Your task to perform on an android device: open wifi settings Image 0: 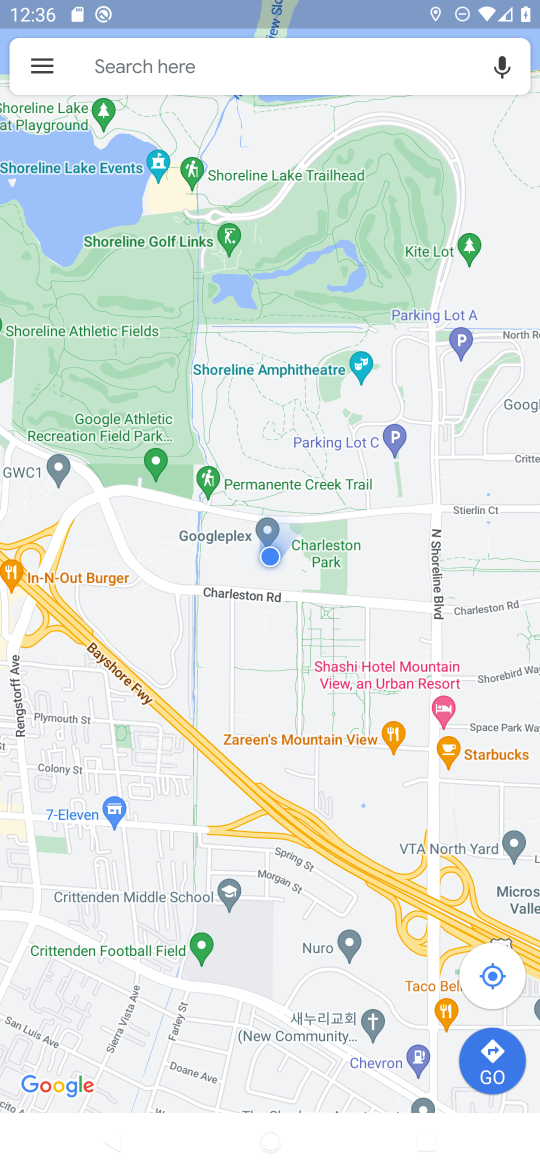
Step 0: press home button
Your task to perform on an android device: open wifi settings Image 1: 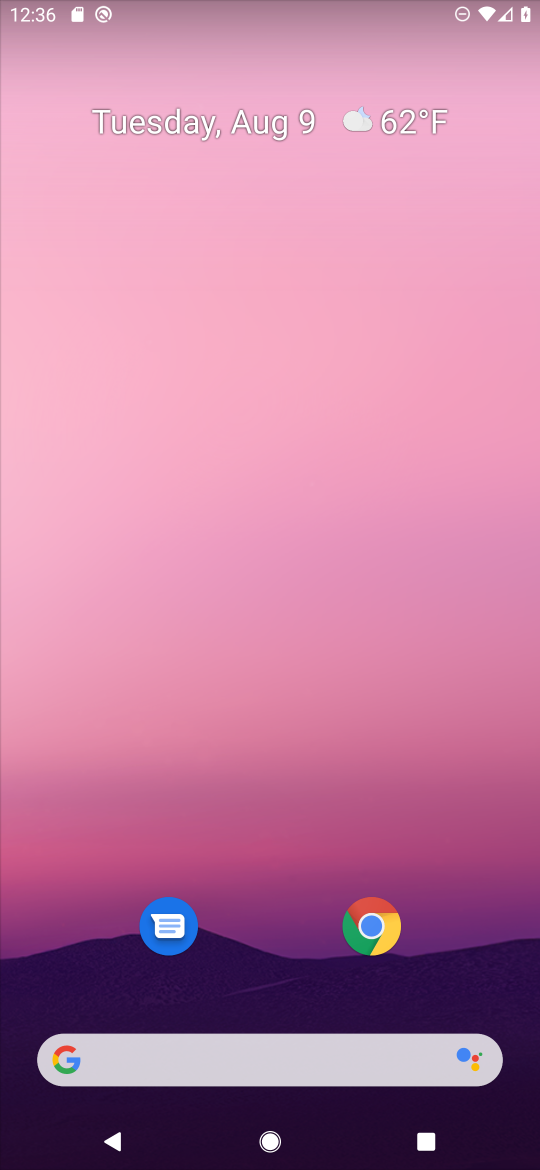
Step 1: drag from (233, 15) to (194, 905)
Your task to perform on an android device: open wifi settings Image 2: 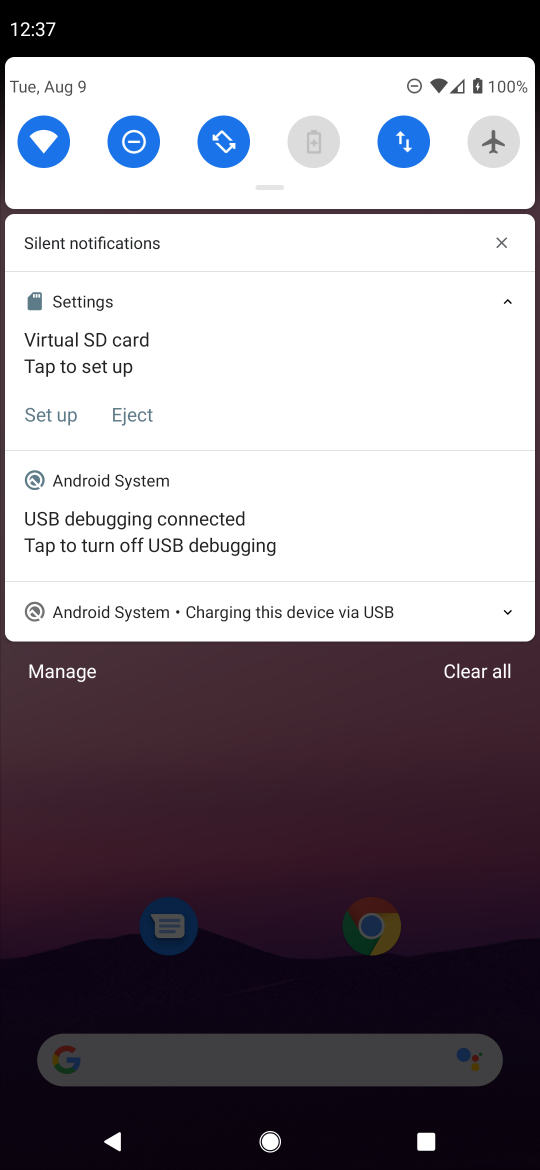
Step 2: click (58, 156)
Your task to perform on an android device: open wifi settings Image 3: 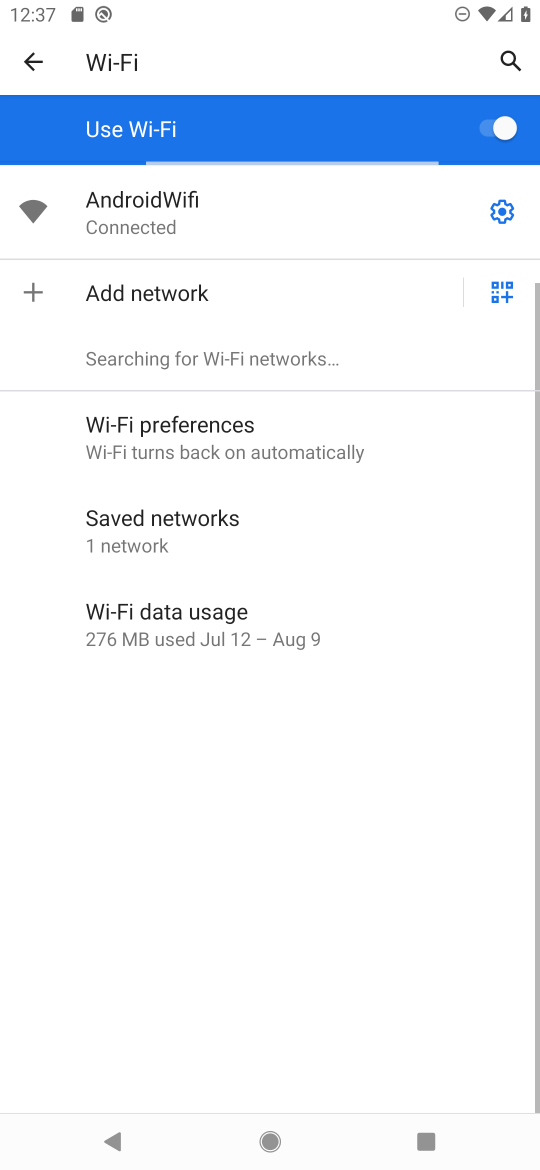
Step 3: click (485, 212)
Your task to perform on an android device: open wifi settings Image 4: 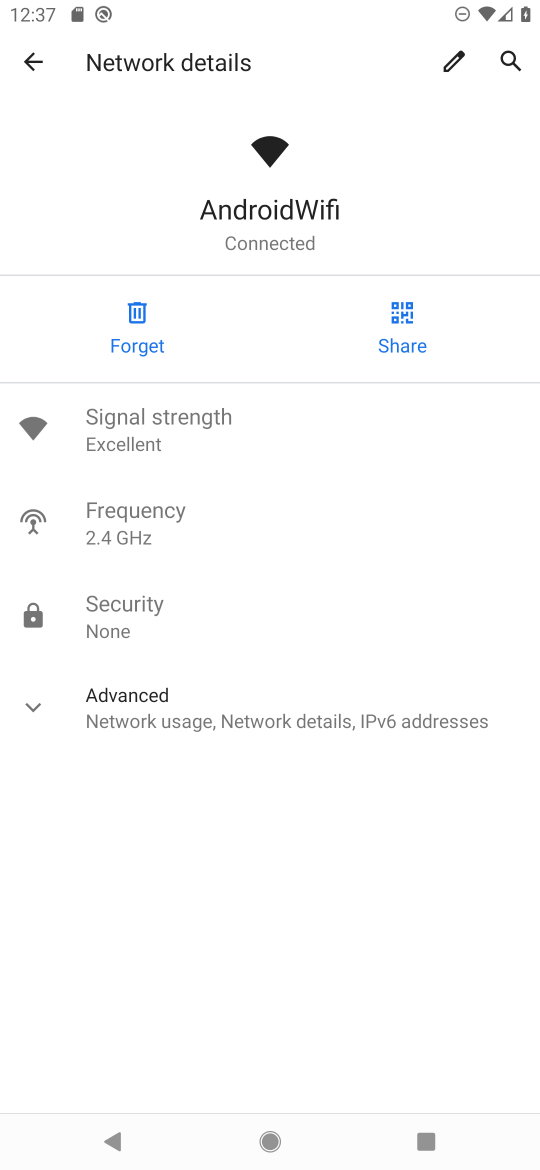
Step 4: task complete